Your task to perform on an android device: Open location settings Image 0: 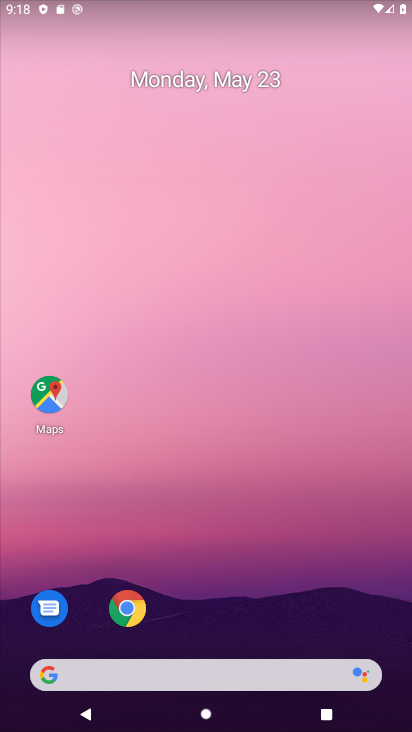
Step 0: drag from (222, 619) to (237, 66)
Your task to perform on an android device: Open location settings Image 1: 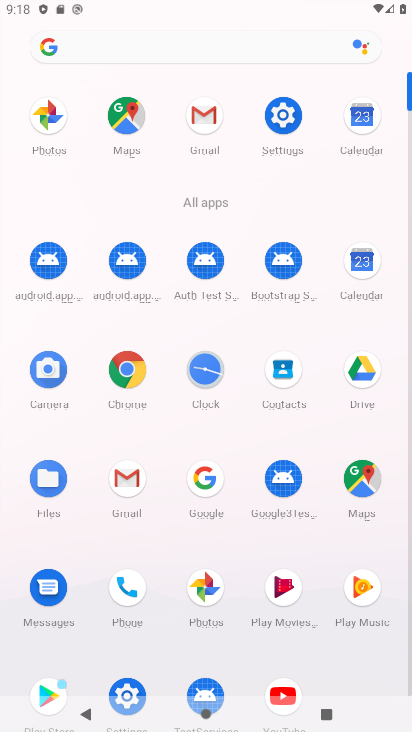
Step 1: click (282, 124)
Your task to perform on an android device: Open location settings Image 2: 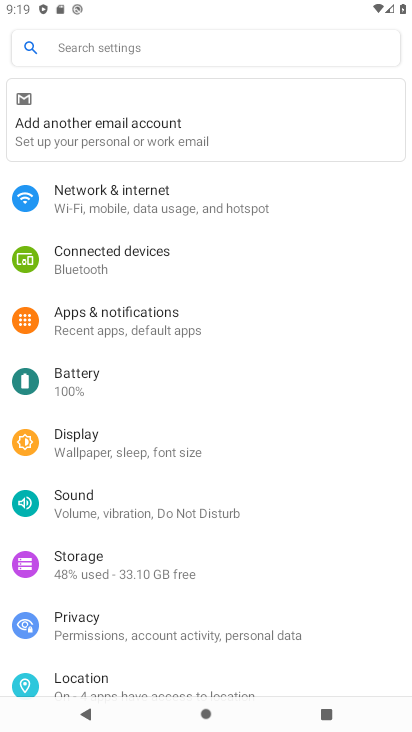
Step 2: click (143, 686)
Your task to perform on an android device: Open location settings Image 3: 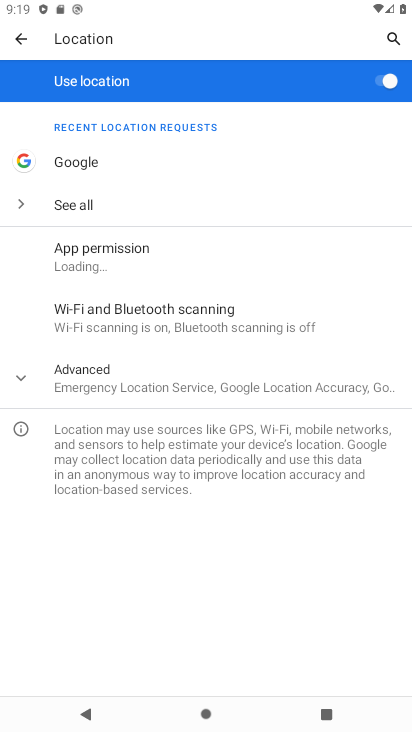
Step 3: task complete